Your task to perform on an android device: turn on airplane mode Image 0: 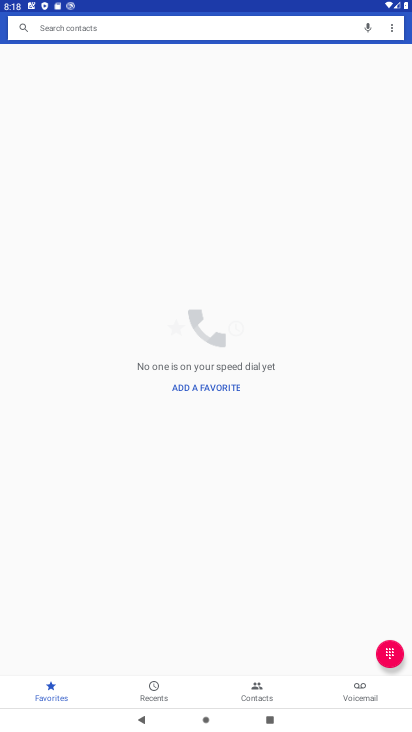
Step 0: press home button
Your task to perform on an android device: turn on airplane mode Image 1: 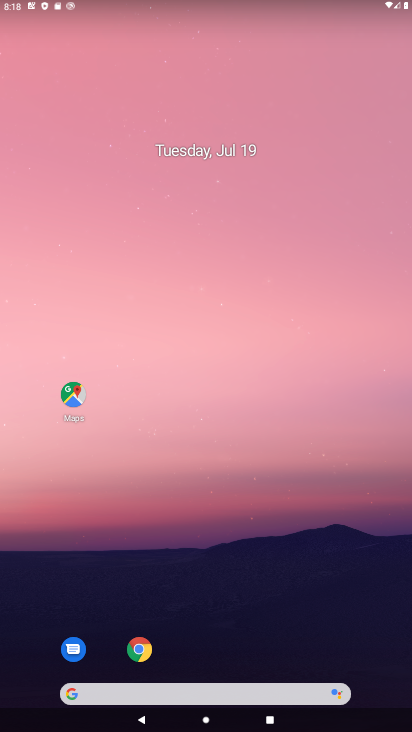
Step 1: drag from (251, 6) to (268, 449)
Your task to perform on an android device: turn on airplane mode Image 2: 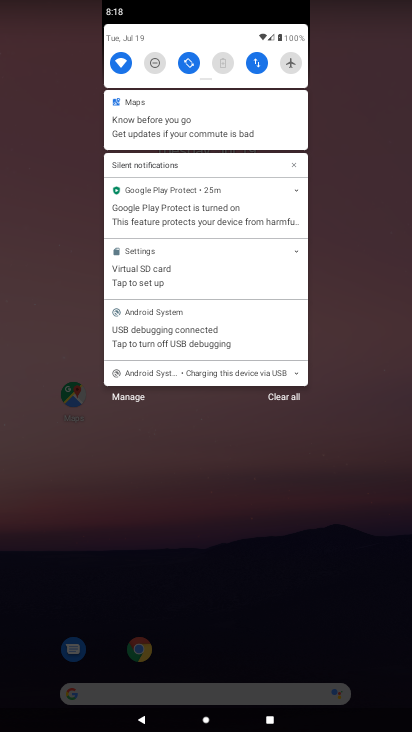
Step 2: click (292, 64)
Your task to perform on an android device: turn on airplane mode Image 3: 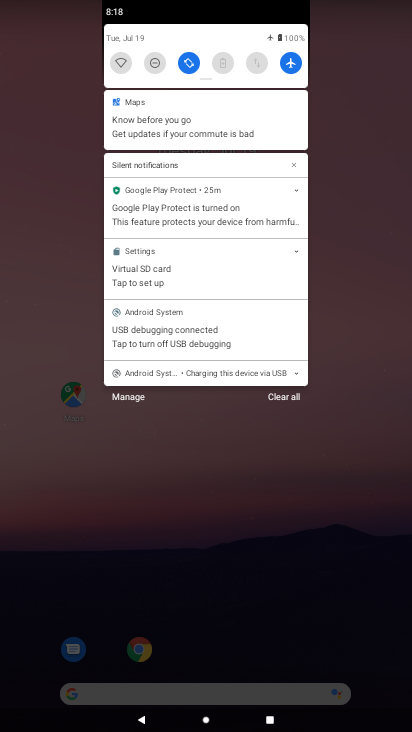
Step 3: task complete